Your task to perform on an android device: change the clock display to digital Image 0: 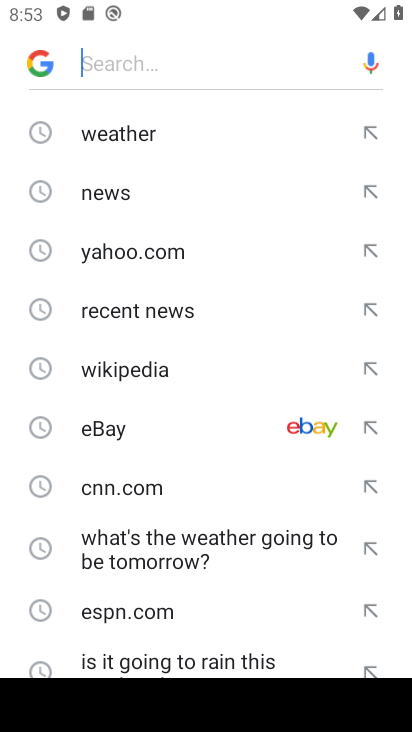
Step 0: press home button
Your task to perform on an android device: change the clock display to digital Image 1: 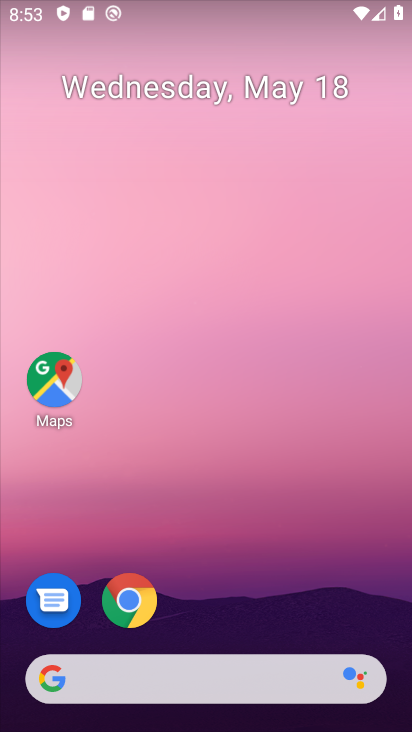
Step 1: drag from (69, 724) to (309, 119)
Your task to perform on an android device: change the clock display to digital Image 2: 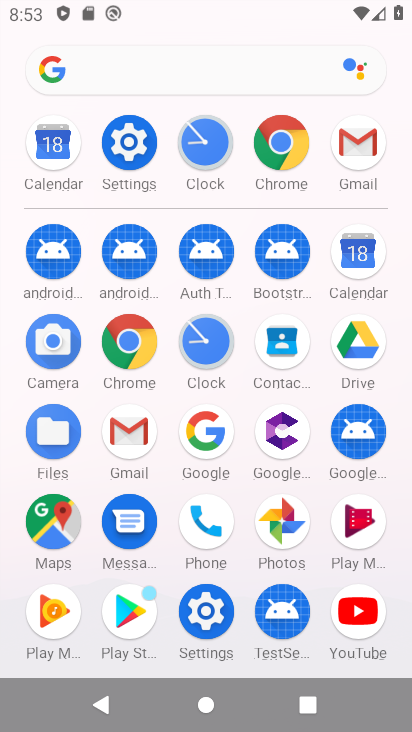
Step 2: click (226, 343)
Your task to perform on an android device: change the clock display to digital Image 3: 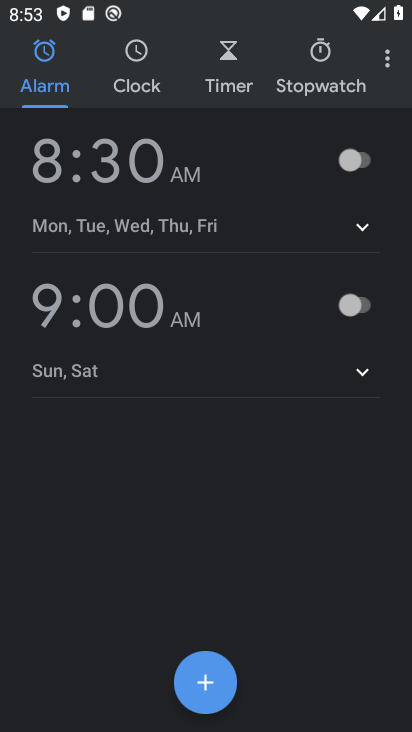
Step 3: click (386, 50)
Your task to perform on an android device: change the clock display to digital Image 4: 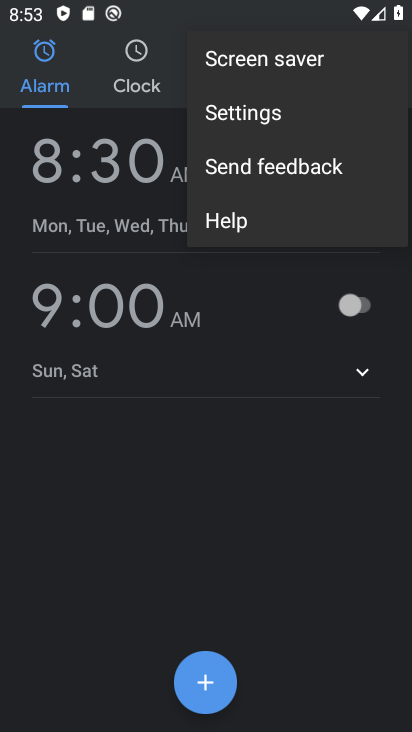
Step 4: click (286, 113)
Your task to perform on an android device: change the clock display to digital Image 5: 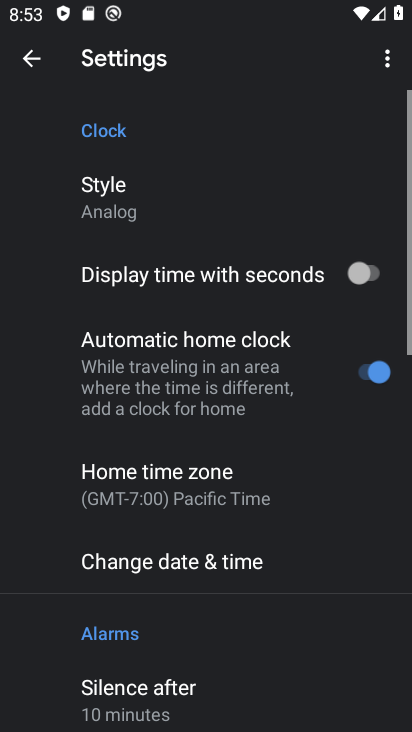
Step 5: click (117, 197)
Your task to perform on an android device: change the clock display to digital Image 6: 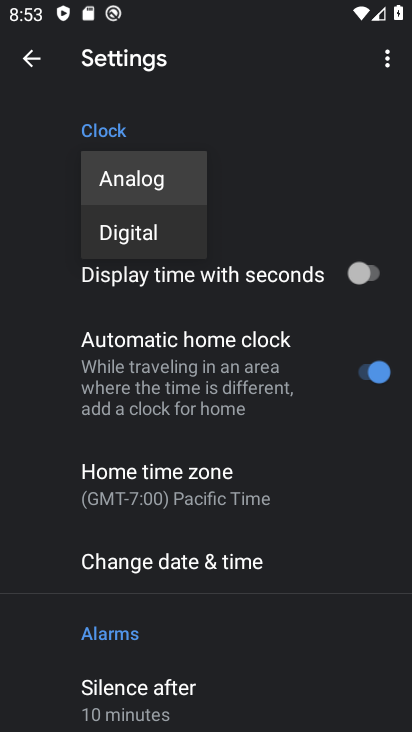
Step 6: click (112, 244)
Your task to perform on an android device: change the clock display to digital Image 7: 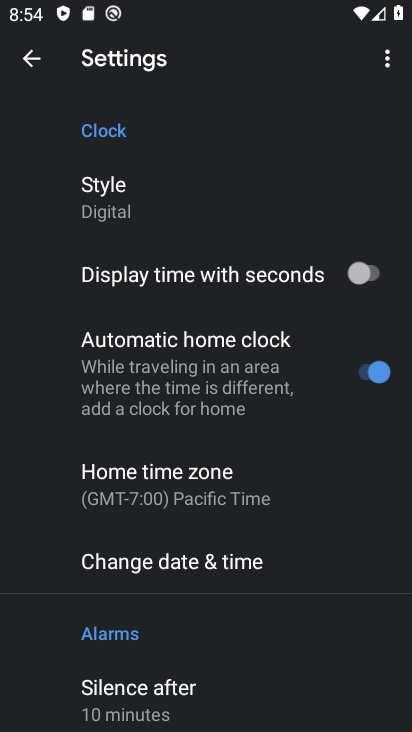
Step 7: task complete